Your task to perform on an android device: Open the phone app and click the voicemail tab. Image 0: 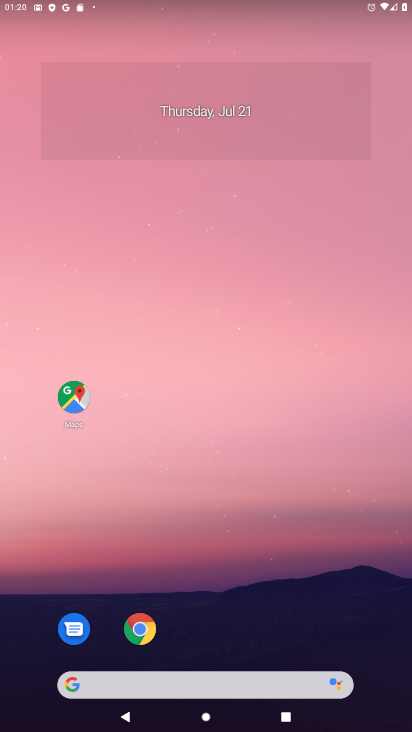
Step 0: drag from (220, 647) to (285, 63)
Your task to perform on an android device: Open the phone app and click the voicemail tab. Image 1: 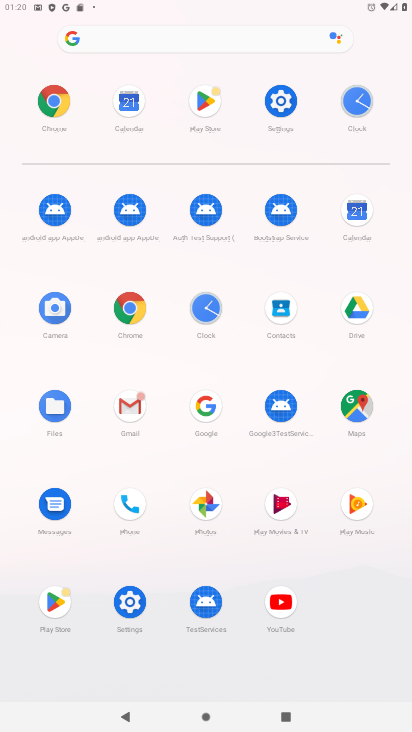
Step 1: click (130, 501)
Your task to perform on an android device: Open the phone app and click the voicemail tab. Image 2: 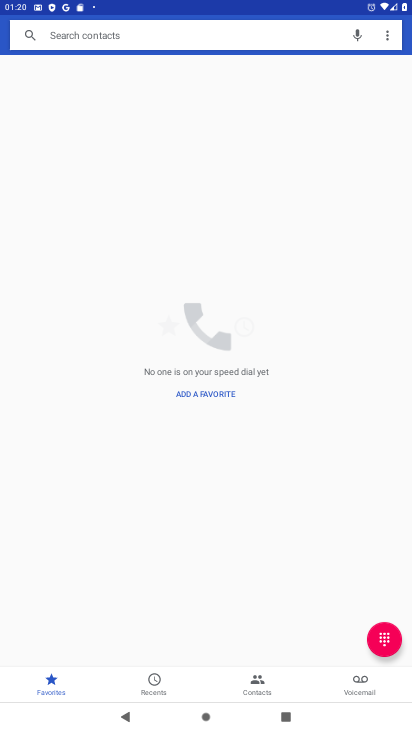
Step 2: click (351, 687)
Your task to perform on an android device: Open the phone app and click the voicemail tab. Image 3: 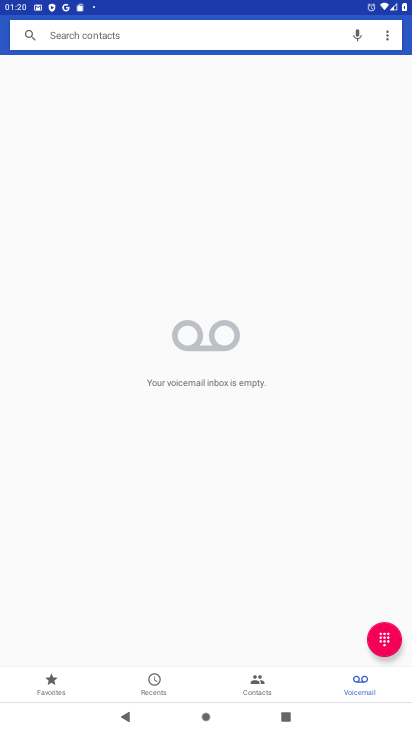
Step 3: task complete